Your task to perform on an android device: Go to Google maps Image 0: 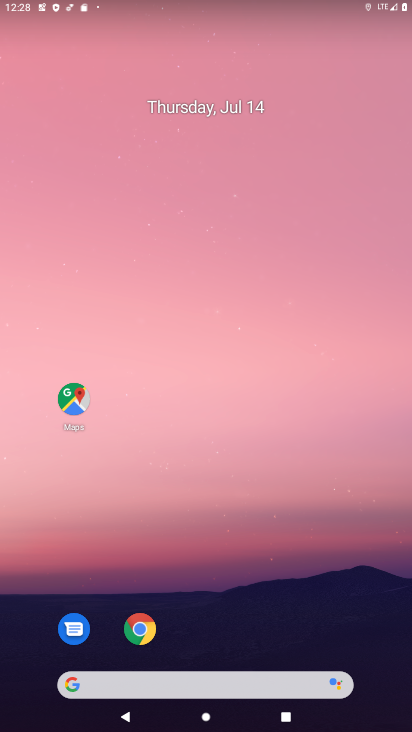
Step 0: click (185, 73)
Your task to perform on an android device: Go to Google maps Image 1: 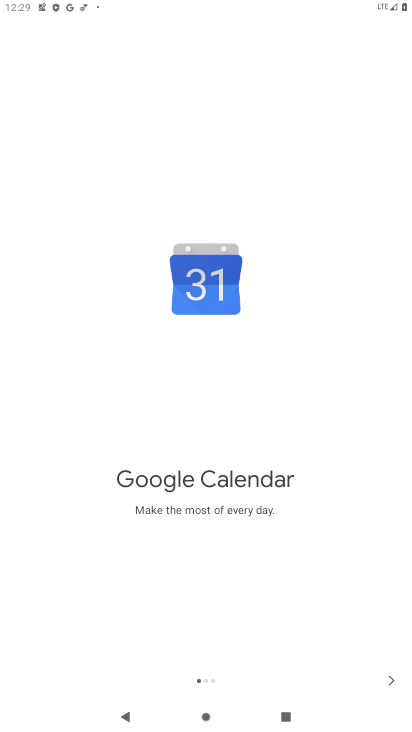
Step 1: press home button
Your task to perform on an android device: Go to Google maps Image 2: 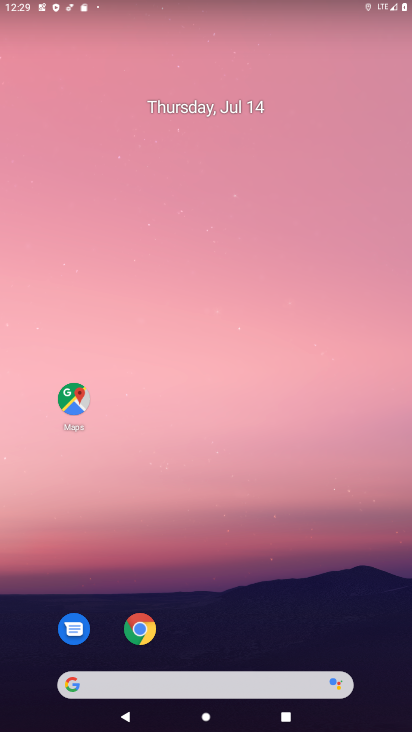
Step 2: drag from (310, 623) to (197, 0)
Your task to perform on an android device: Go to Google maps Image 3: 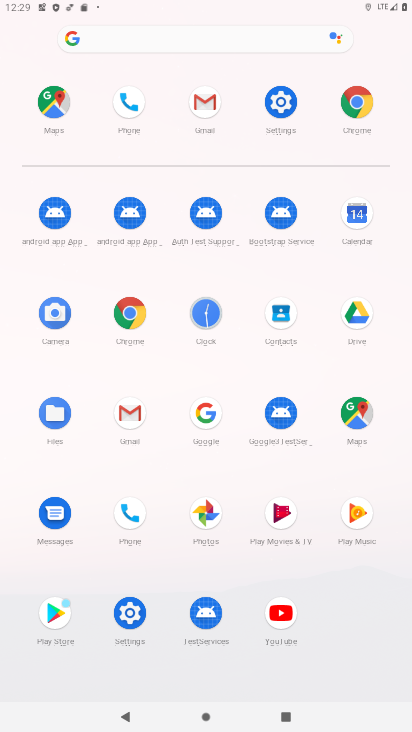
Step 3: click (360, 418)
Your task to perform on an android device: Go to Google maps Image 4: 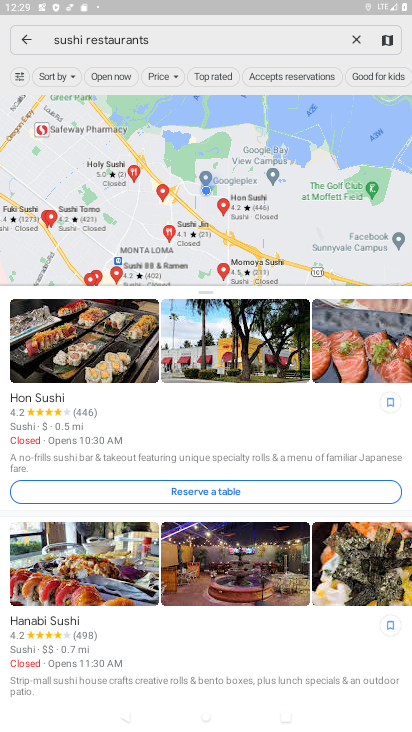
Step 4: task complete